Your task to perform on an android device: toggle notifications settings in the gmail app Image 0: 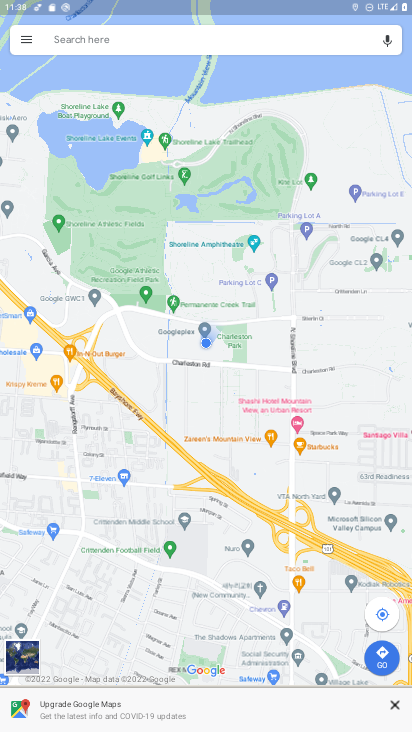
Step 0: click (322, 119)
Your task to perform on an android device: toggle notifications settings in the gmail app Image 1: 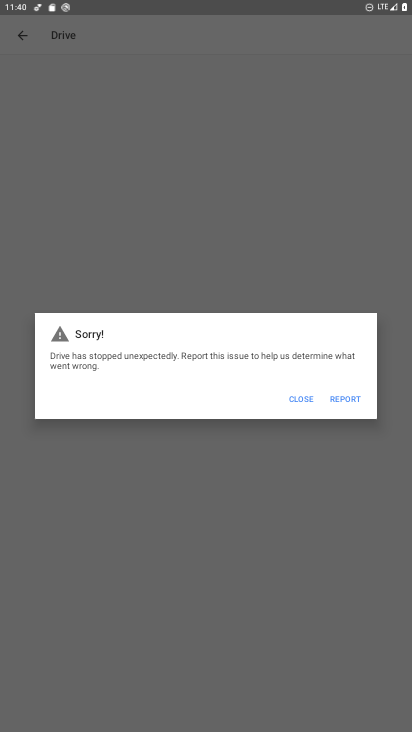
Step 1: press home button
Your task to perform on an android device: toggle notifications settings in the gmail app Image 2: 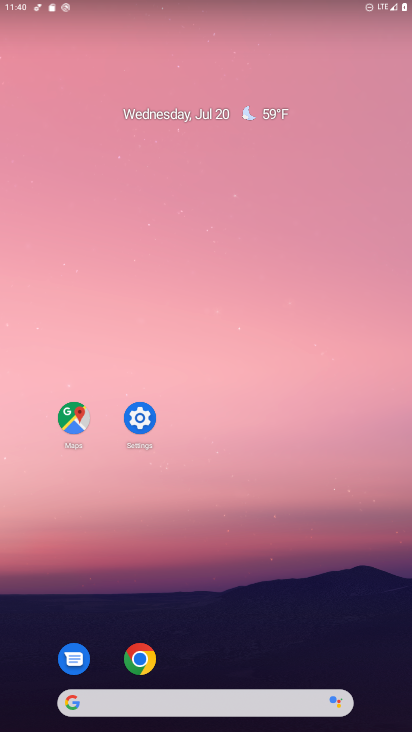
Step 2: drag from (389, 615) to (360, 91)
Your task to perform on an android device: toggle notifications settings in the gmail app Image 3: 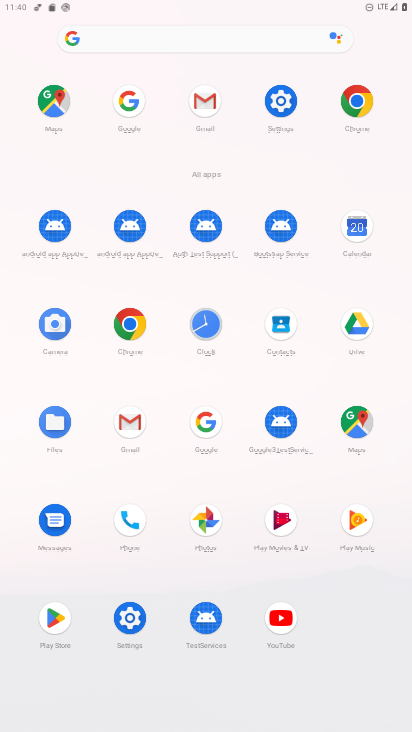
Step 3: drag from (132, 428) to (224, 386)
Your task to perform on an android device: toggle notifications settings in the gmail app Image 4: 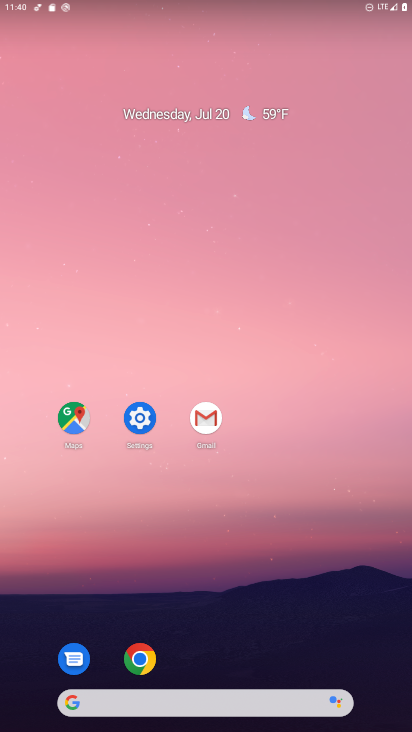
Step 4: click (214, 424)
Your task to perform on an android device: toggle notifications settings in the gmail app Image 5: 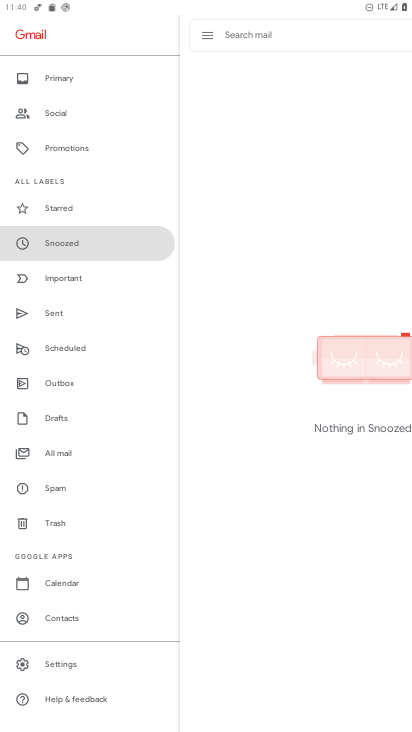
Step 5: click (48, 655)
Your task to perform on an android device: toggle notifications settings in the gmail app Image 6: 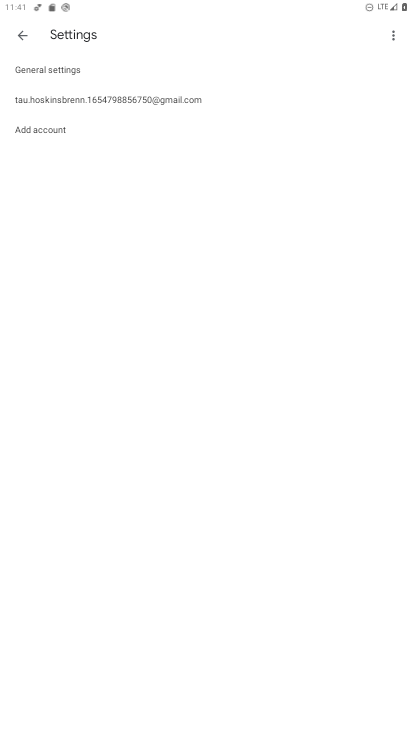
Step 6: click (119, 91)
Your task to perform on an android device: toggle notifications settings in the gmail app Image 7: 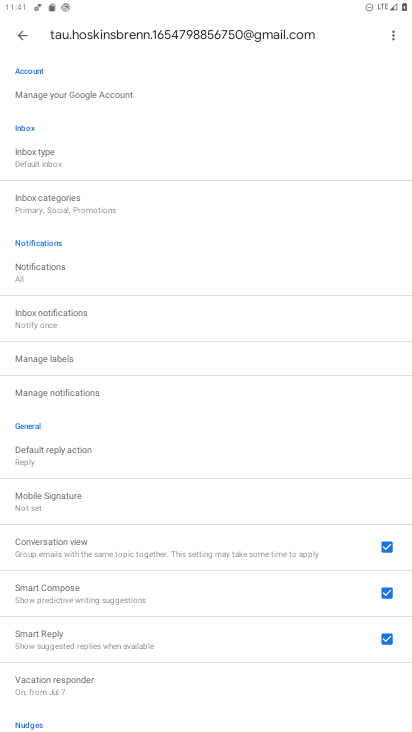
Step 7: click (34, 273)
Your task to perform on an android device: toggle notifications settings in the gmail app Image 8: 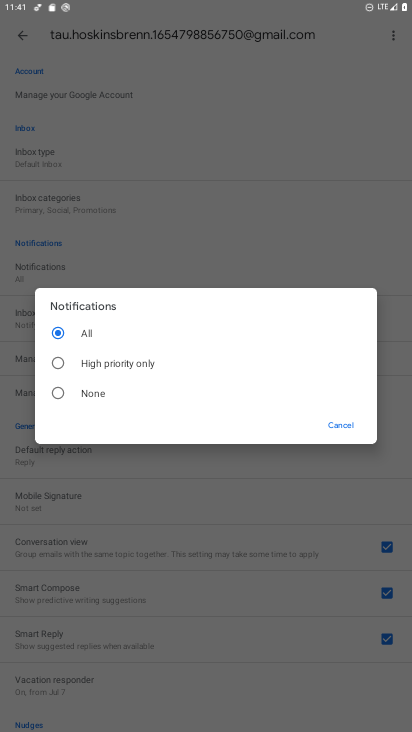
Step 8: click (80, 361)
Your task to perform on an android device: toggle notifications settings in the gmail app Image 9: 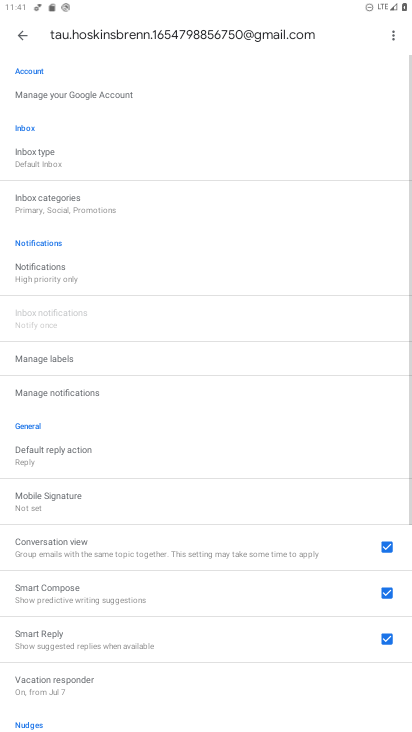
Step 9: task complete